Your task to perform on an android device: turn off notifications settings in the gmail app Image 0: 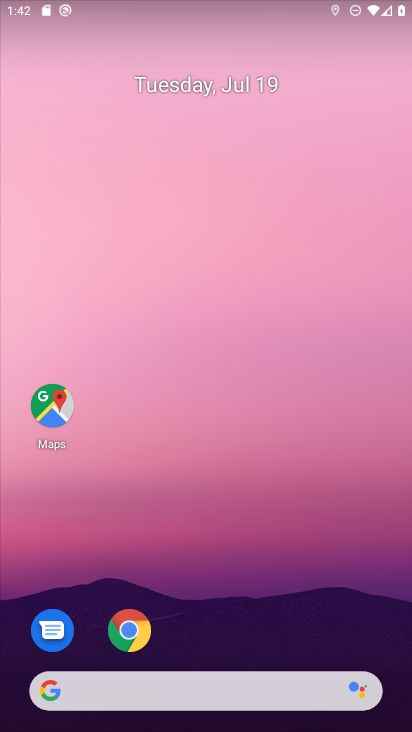
Step 0: press home button
Your task to perform on an android device: turn off notifications settings in the gmail app Image 1: 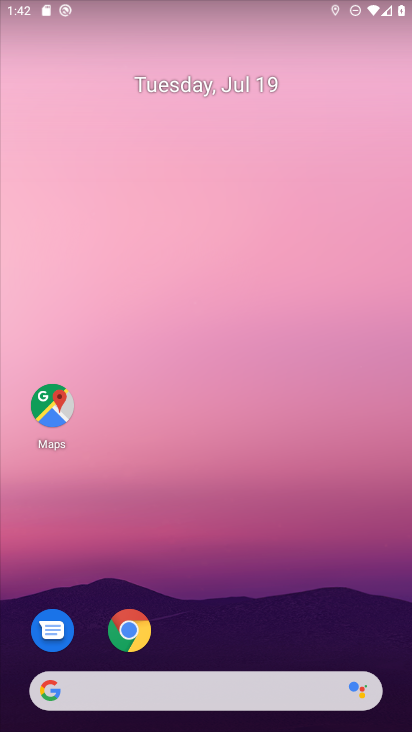
Step 1: drag from (128, 687) to (256, 122)
Your task to perform on an android device: turn off notifications settings in the gmail app Image 2: 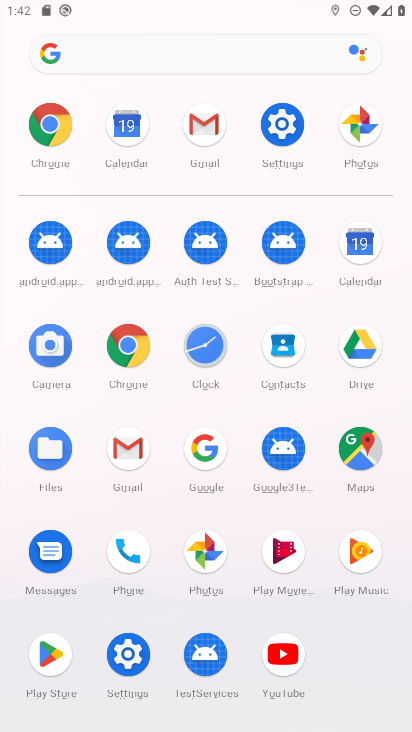
Step 2: click (210, 126)
Your task to perform on an android device: turn off notifications settings in the gmail app Image 3: 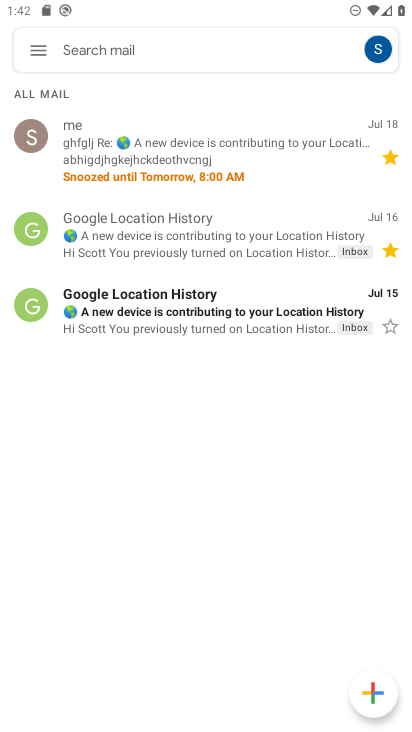
Step 3: click (35, 48)
Your task to perform on an android device: turn off notifications settings in the gmail app Image 4: 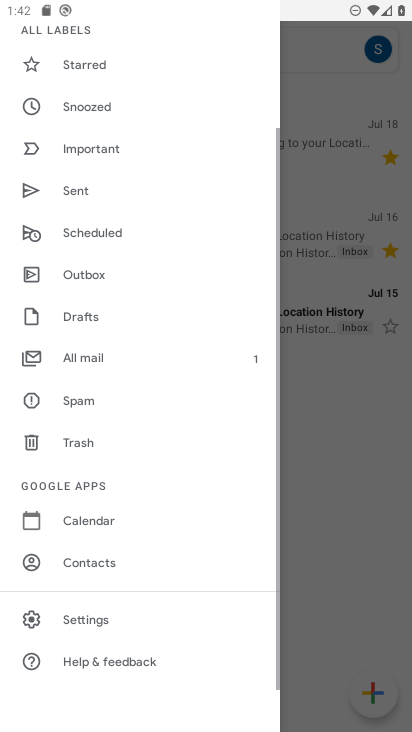
Step 4: click (102, 620)
Your task to perform on an android device: turn off notifications settings in the gmail app Image 5: 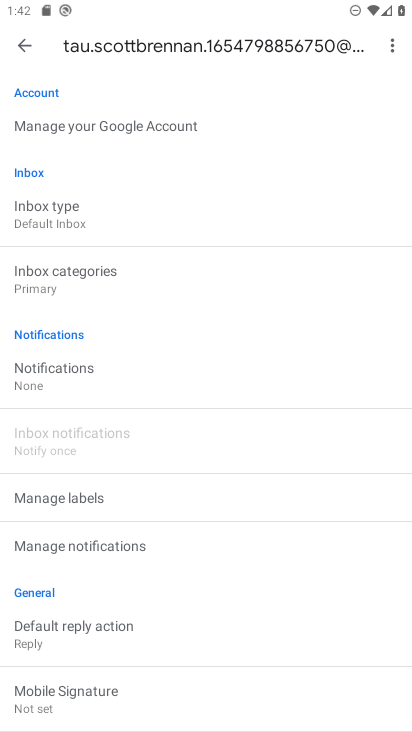
Step 5: click (64, 378)
Your task to perform on an android device: turn off notifications settings in the gmail app Image 6: 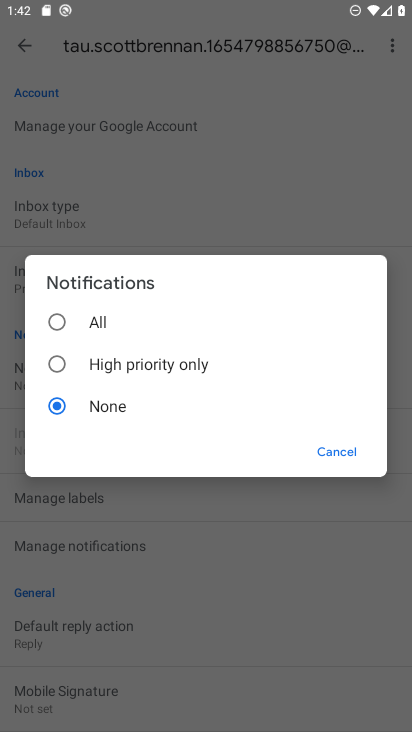
Step 6: task complete